Your task to perform on an android device: toggle data saver in the chrome app Image 0: 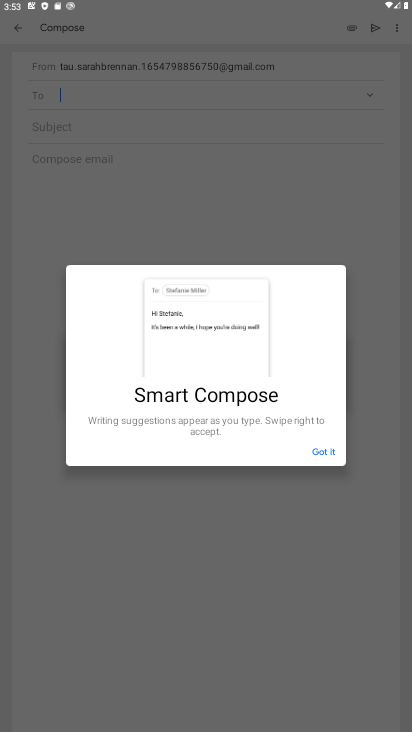
Step 0: press home button
Your task to perform on an android device: toggle data saver in the chrome app Image 1: 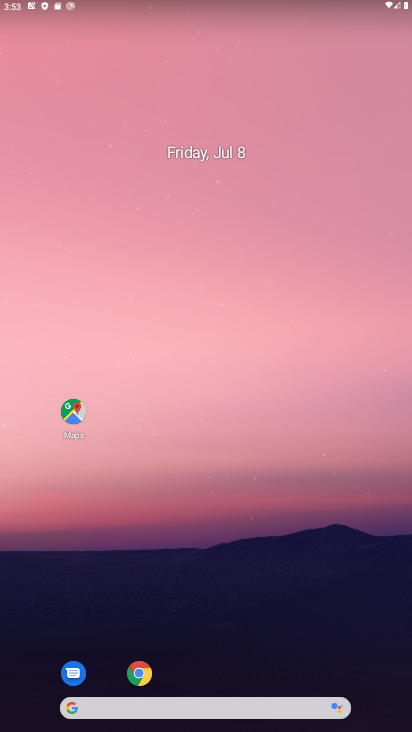
Step 1: click (145, 677)
Your task to perform on an android device: toggle data saver in the chrome app Image 2: 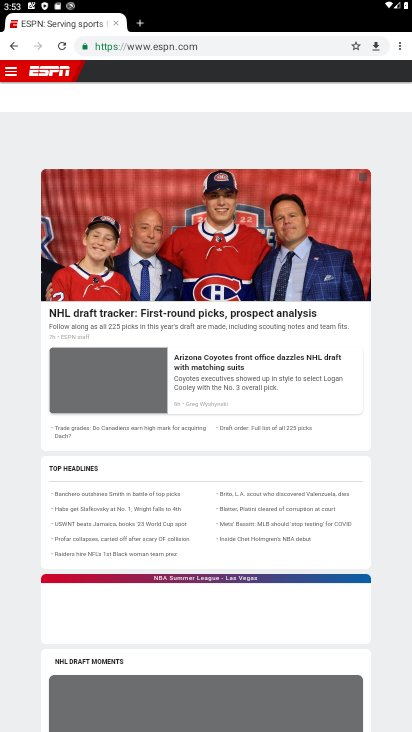
Step 2: click (399, 47)
Your task to perform on an android device: toggle data saver in the chrome app Image 3: 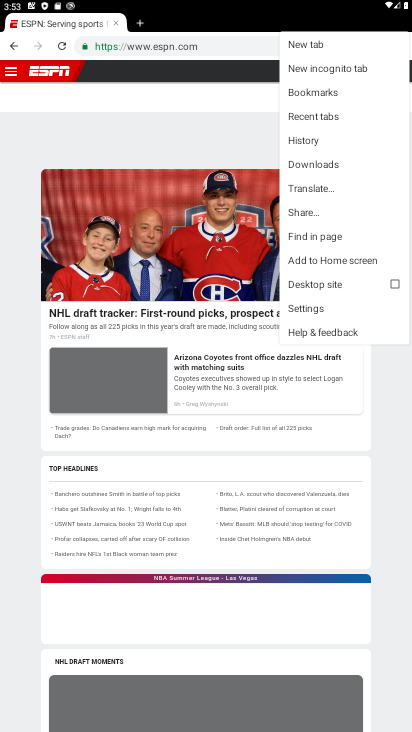
Step 3: click (301, 306)
Your task to perform on an android device: toggle data saver in the chrome app Image 4: 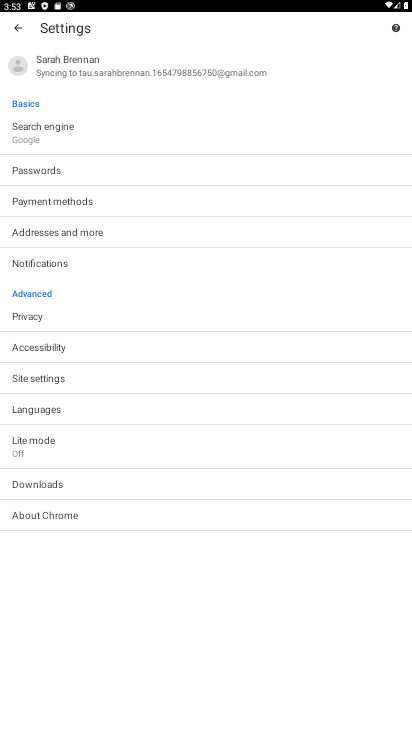
Step 4: click (30, 447)
Your task to perform on an android device: toggle data saver in the chrome app Image 5: 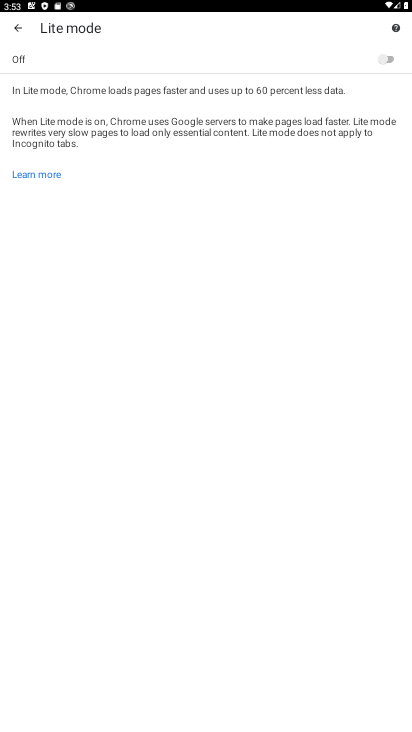
Step 5: click (381, 60)
Your task to perform on an android device: toggle data saver in the chrome app Image 6: 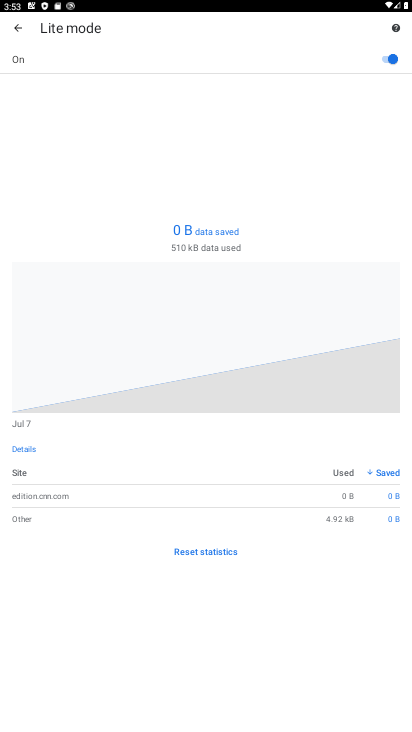
Step 6: task complete